Your task to perform on an android device: What's the weather going to be this weekend? Image 0: 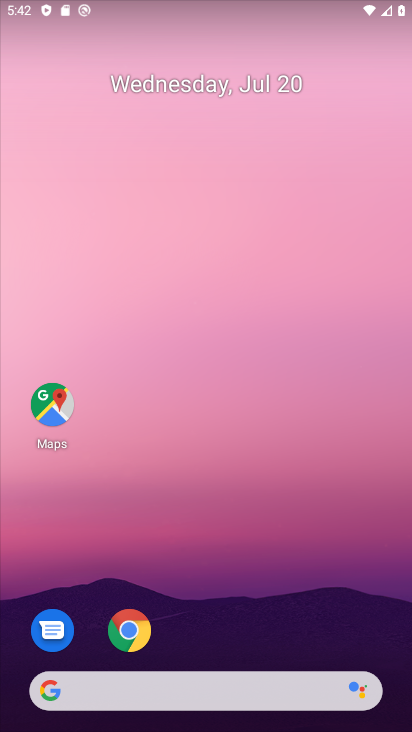
Step 0: drag from (262, 594) to (280, 89)
Your task to perform on an android device: What's the weather going to be this weekend? Image 1: 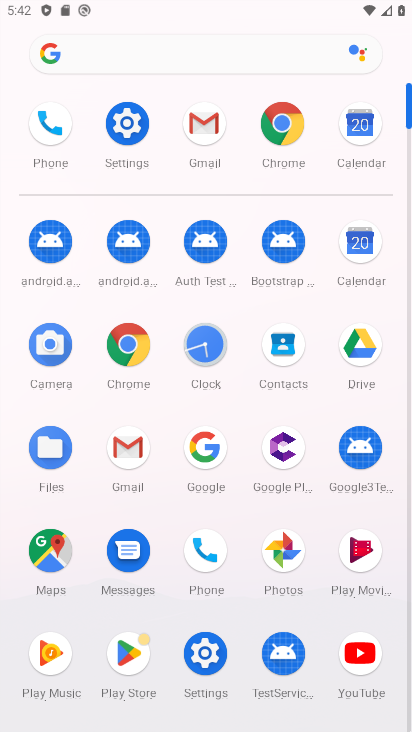
Step 1: click (123, 361)
Your task to perform on an android device: What's the weather going to be this weekend? Image 2: 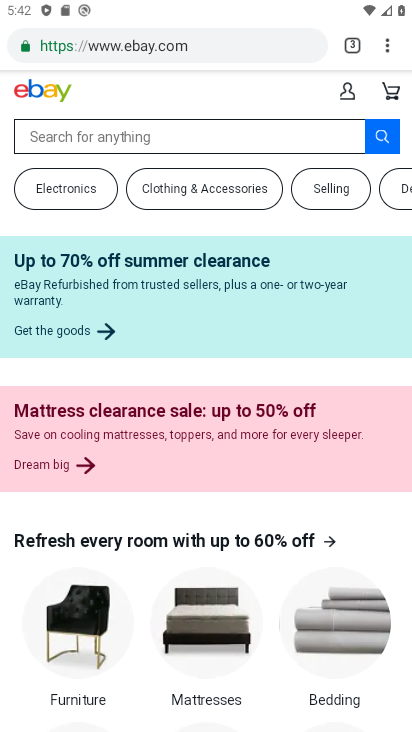
Step 2: click (171, 41)
Your task to perform on an android device: What's the weather going to be this weekend? Image 3: 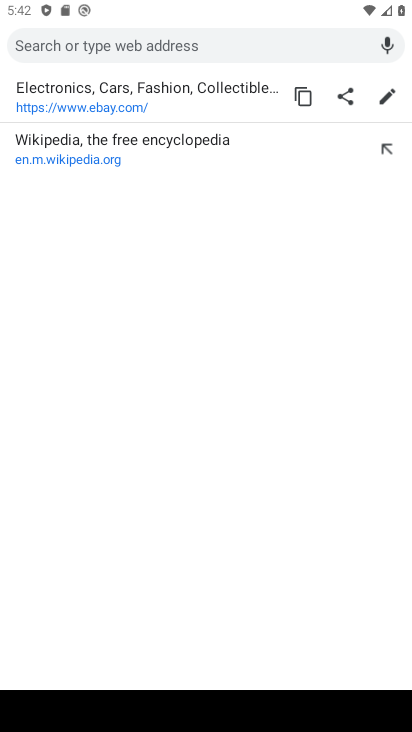
Step 3: type "weather going to be this weekend"
Your task to perform on an android device: What's the weather going to be this weekend? Image 4: 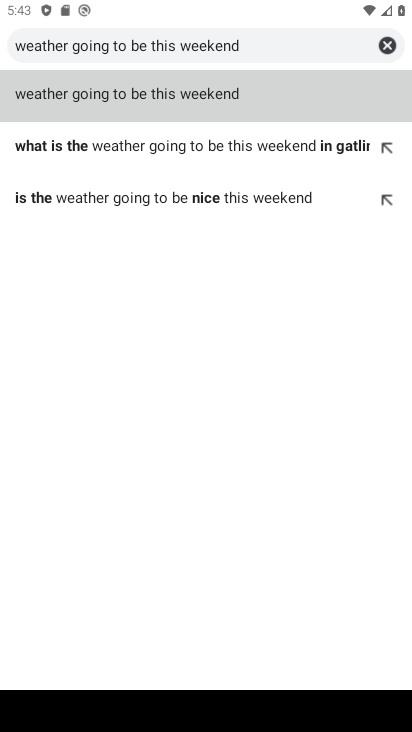
Step 4: click (227, 93)
Your task to perform on an android device: What's the weather going to be this weekend? Image 5: 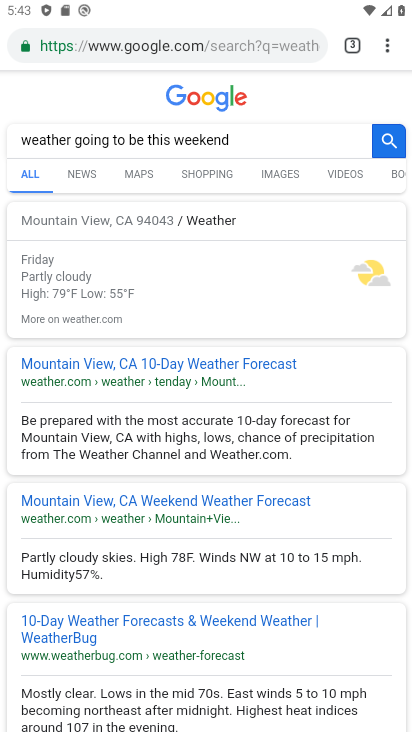
Step 5: task complete